Your task to perform on an android device: open app "WhatsApp Messenger" (install if not already installed) Image 0: 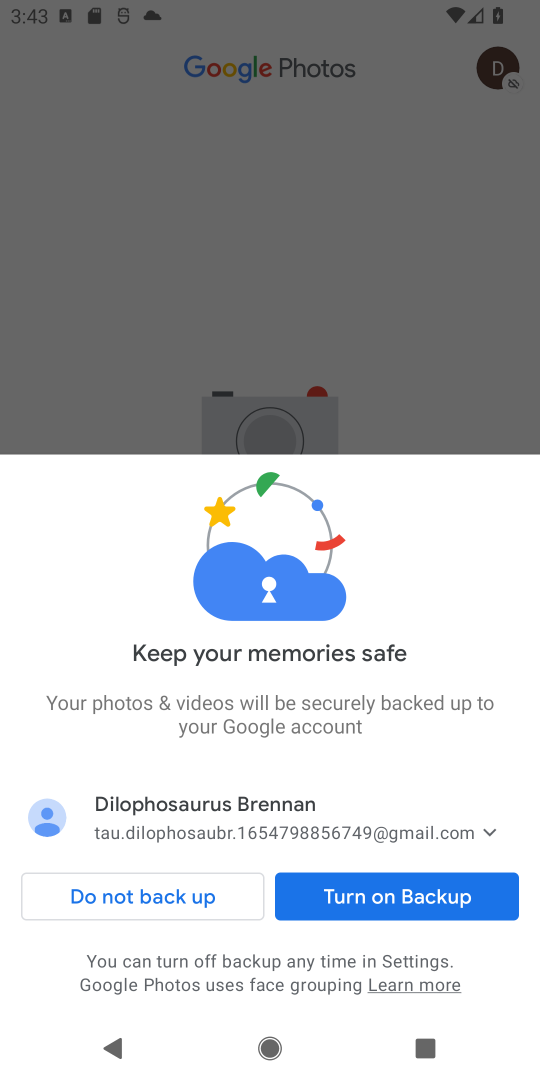
Step 0: press home button
Your task to perform on an android device: open app "WhatsApp Messenger" (install if not already installed) Image 1: 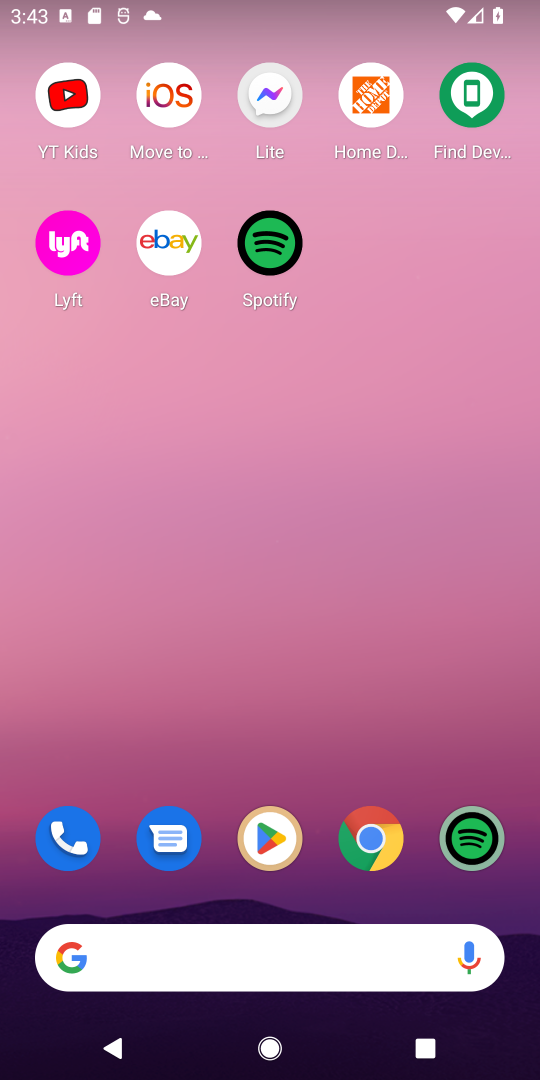
Step 1: press home button
Your task to perform on an android device: open app "WhatsApp Messenger" (install if not already installed) Image 2: 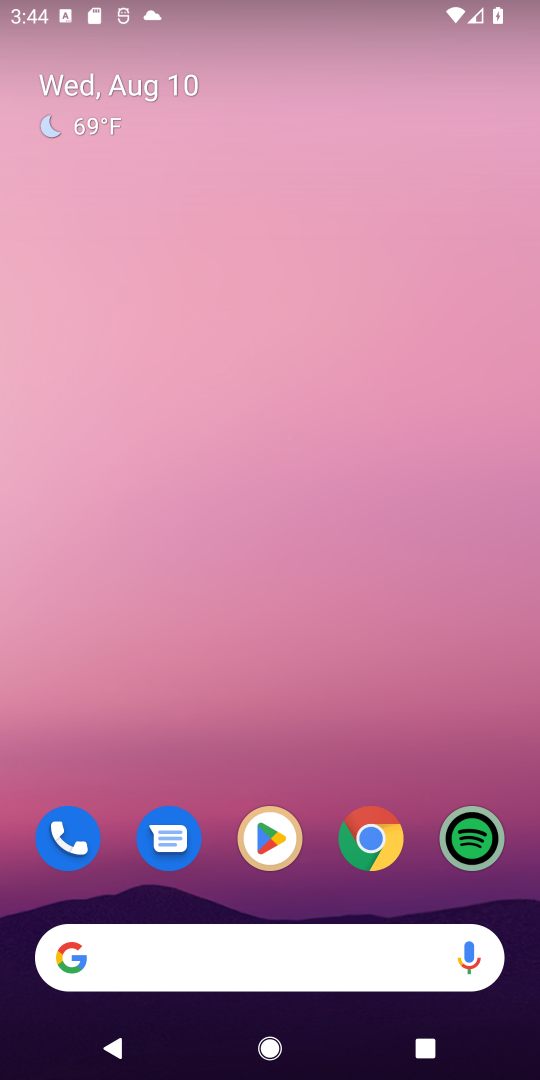
Step 2: click (259, 838)
Your task to perform on an android device: open app "WhatsApp Messenger" (install if not already installed) Image 3: 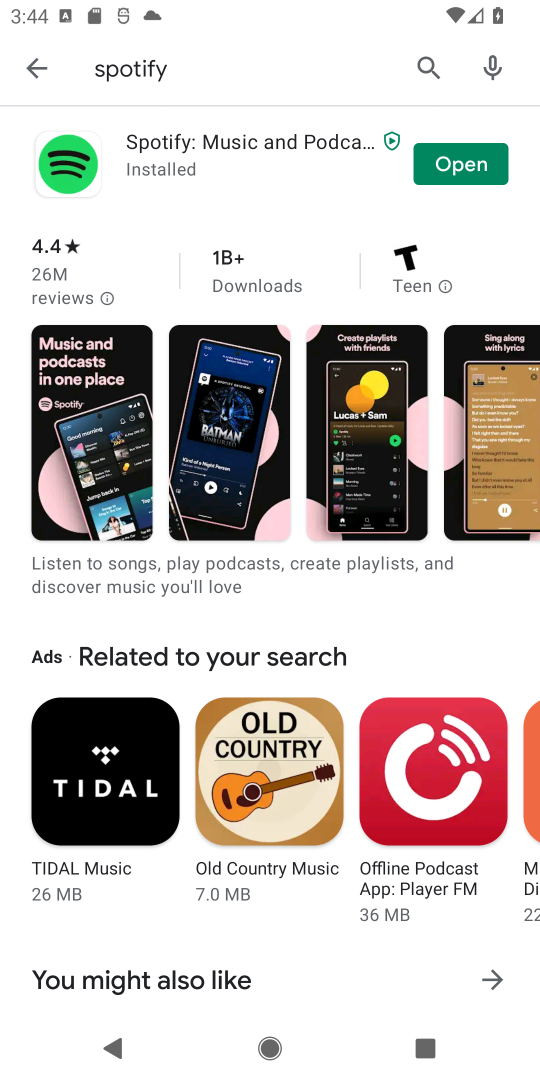
Step 3: click (417, 70)
Your task to perform on an android device: open app "WhatsApp Messenger" (install if not already installed) Image 4: 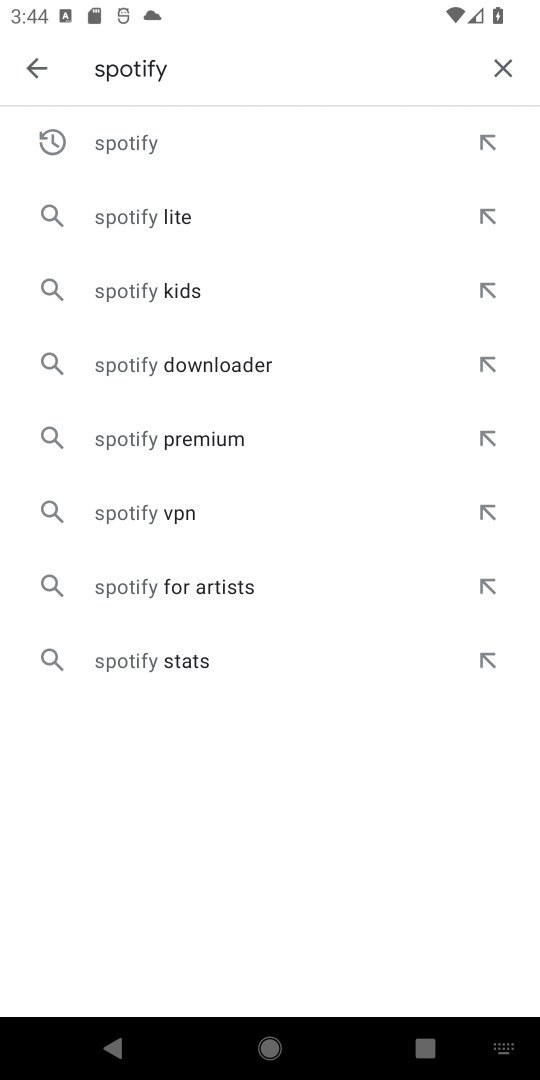
Step 4: click (497, 66)
Your task to perform on an android device: open app "WhatsApp Messenger" (install if not already installed) Image 5: 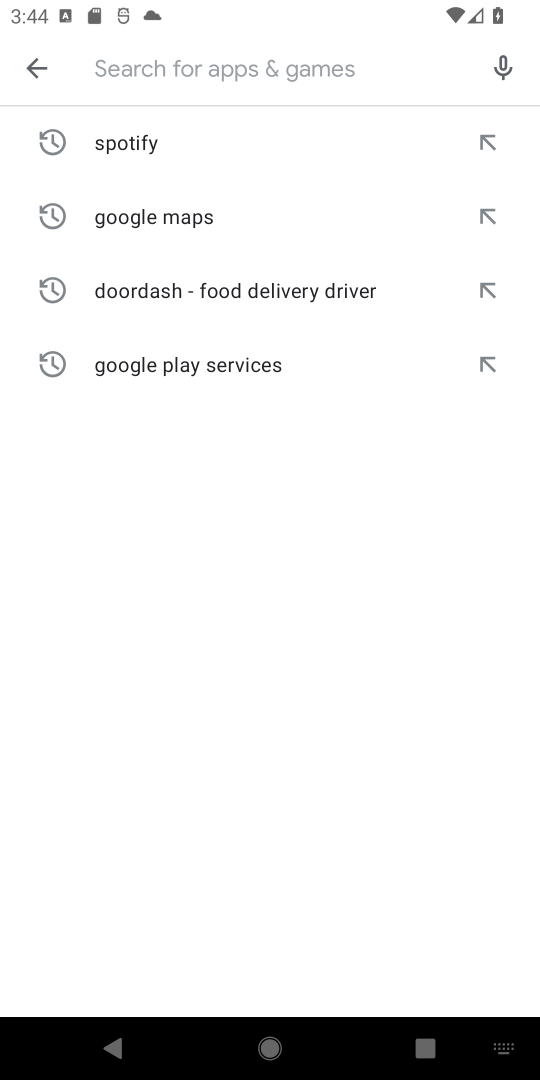
Step 5: type "WhatsApp Messenger"
Your task to perform on an android device: open app "WhatsApp Messenger" (install if not already installed) Image 6: 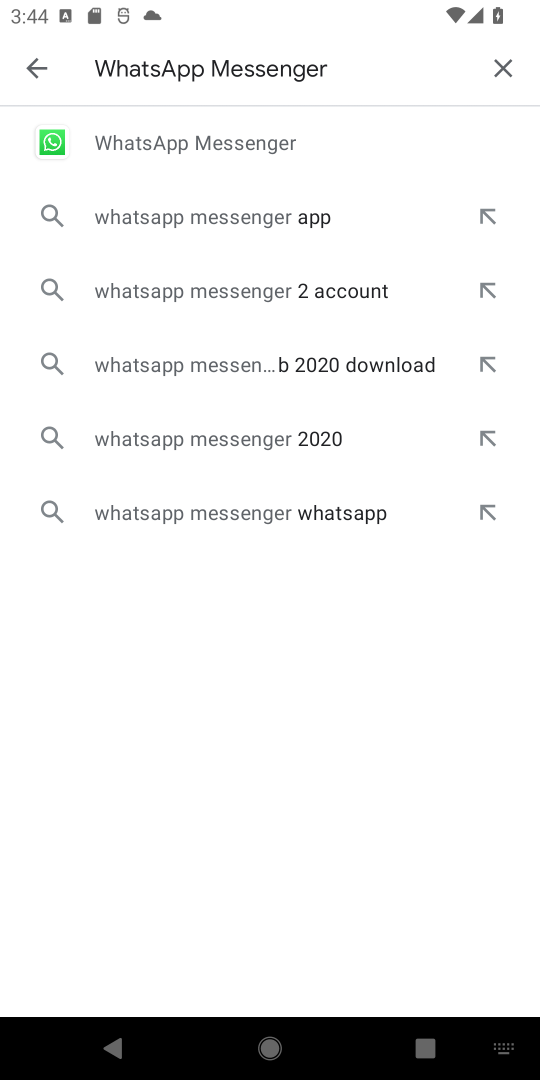
Step 6: click (260, 141)
Your task to perform on an android device: open app "WhatsApp Messenger" (install if not already installed) Image 7: 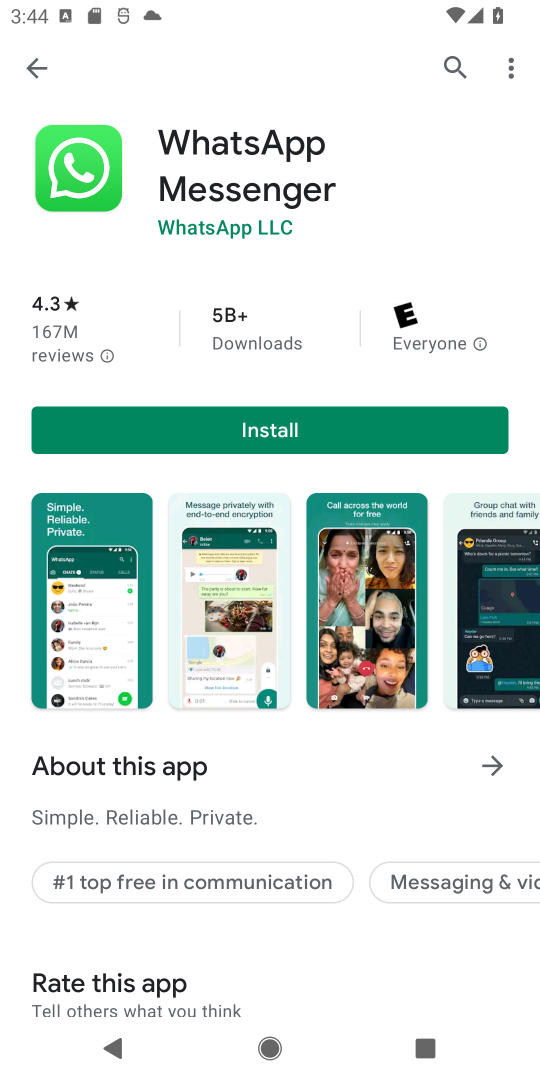
Step 7: click (285, 431)
Your task to perform on an android device: open app "WhatsApp Messenger" (install if not already installed) Image 8: 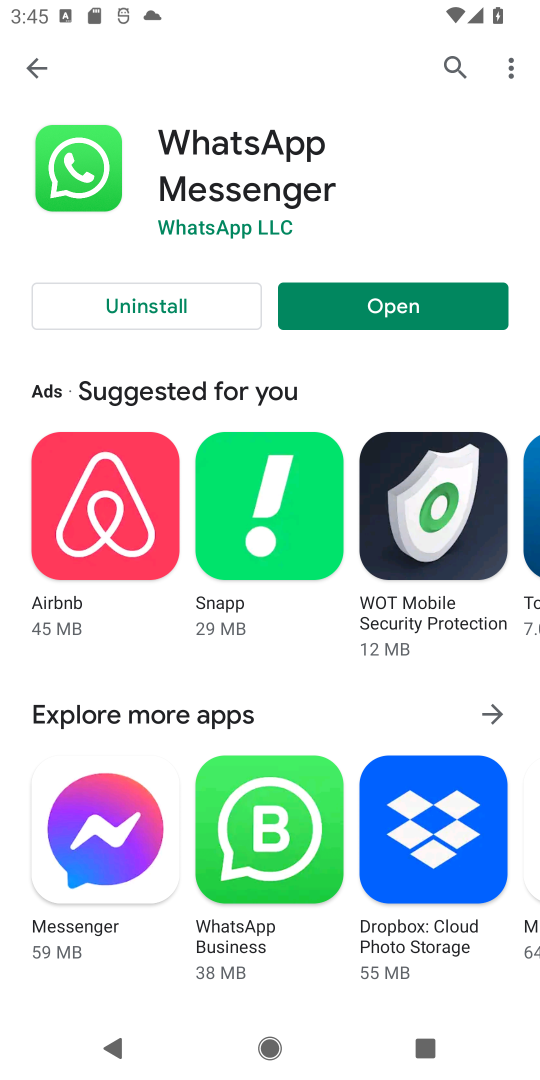
Step 8: click (425, 309)
Your task to perform on an android device: open app "WhatsApp Messenger" (install if not already installed) Image 9: 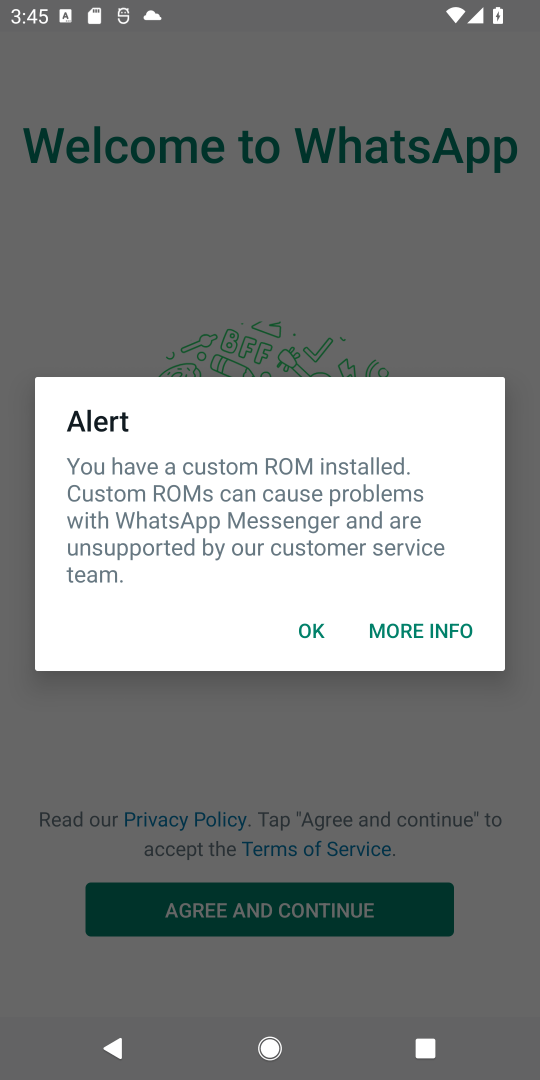
Step 9: task complete